Your task to perform on an android device: turn on data saver in the chrome app Image 0: 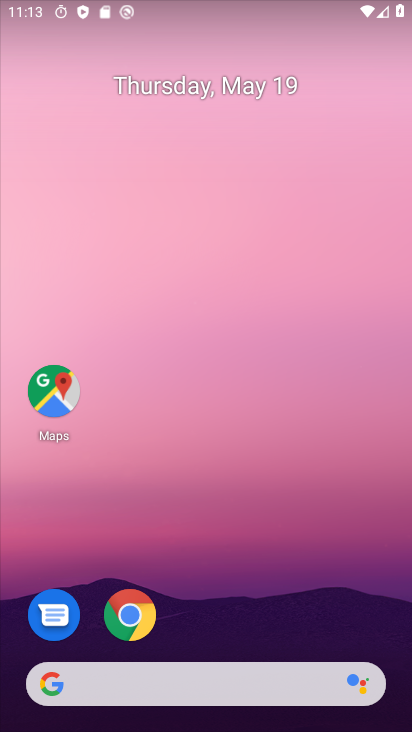
Step 0: click (135, 607)
Your task to perform on an android device: turn on data saver in the chrome app Image 1: 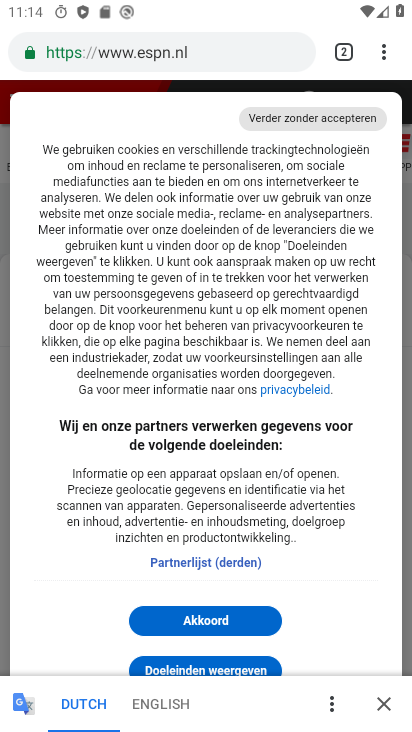
Step 1: click (385, 39)
Your task to perform on an android device: turn on data saver in the chrome app Image 2: 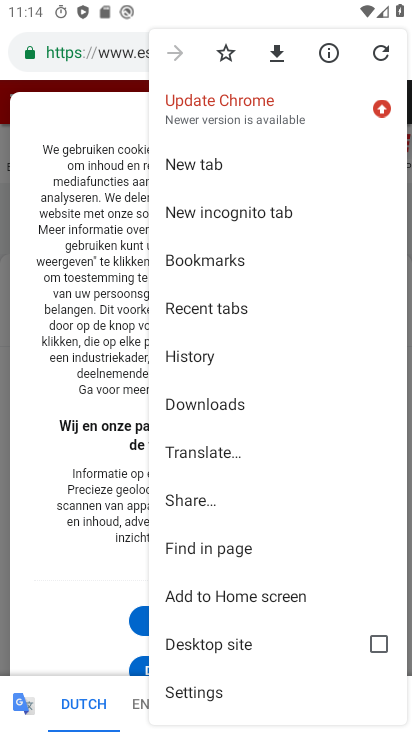
Step 2: drag from (276, 559) to (238, 377)
Your task to perform on an android device: turn on data saver in the chrome app Image 3: 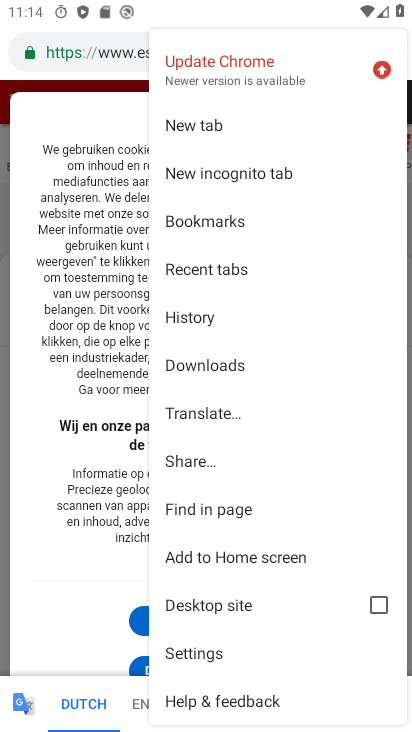
Step 3: click (246, 649)
Your task to perform on an android device: turn on data saver in the chrome app Image 4: 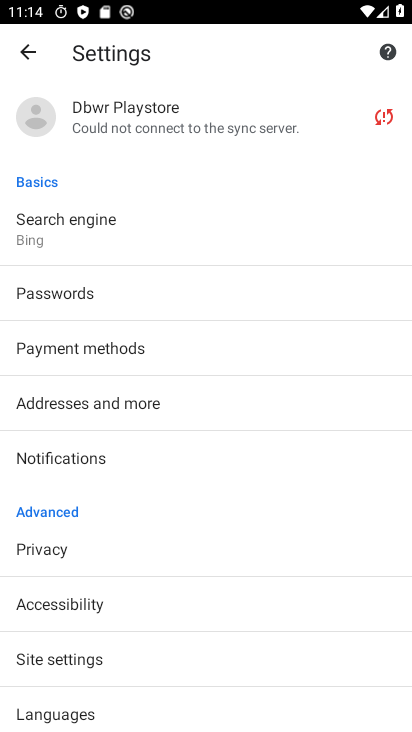
Step 4: drag from (163, 621) to (135, 466)
Your task to perform on an android device: turn on data saver in the chrome app Image 5: 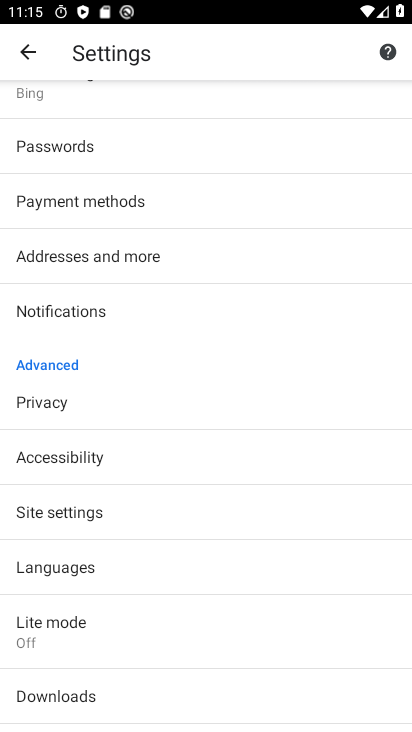
Step 5: click (112, 627)
Your task to perform on an android device: turn on data saver in the chrome app Image 6: 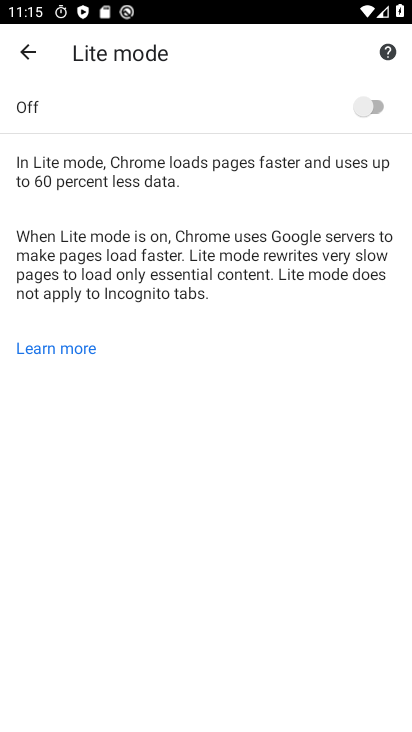
Step 6: click (367, 106)
Your task to perform on an android device: turn on data saver in the chrome app Image 7: 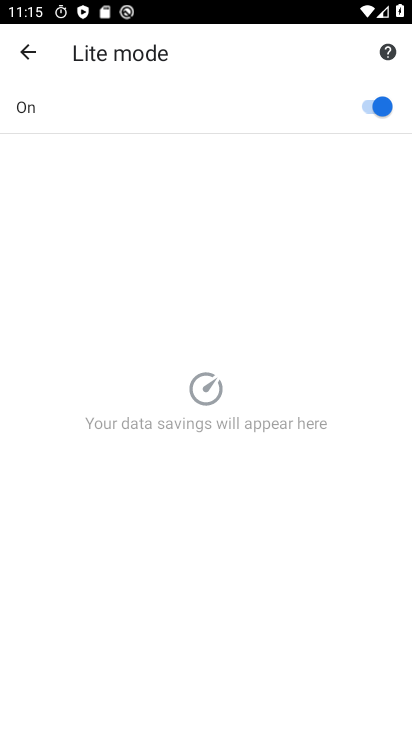
Step 7: task complete